Your task to perform on an android device: Toggle the flashlight Image 0: 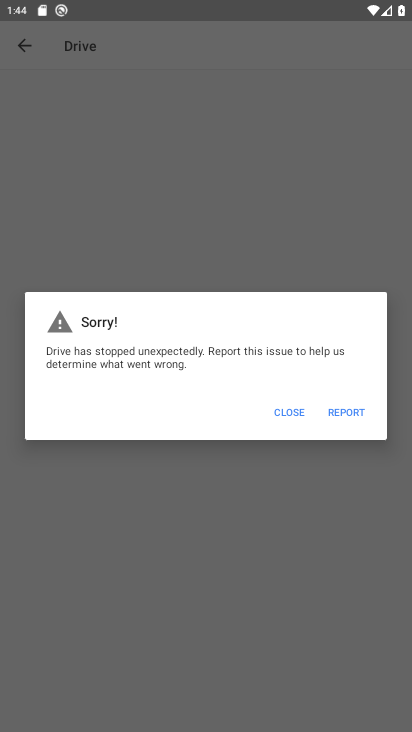
Step 0: press home button
Your task to perform on an android device: Toggle the flashlight Image 1: 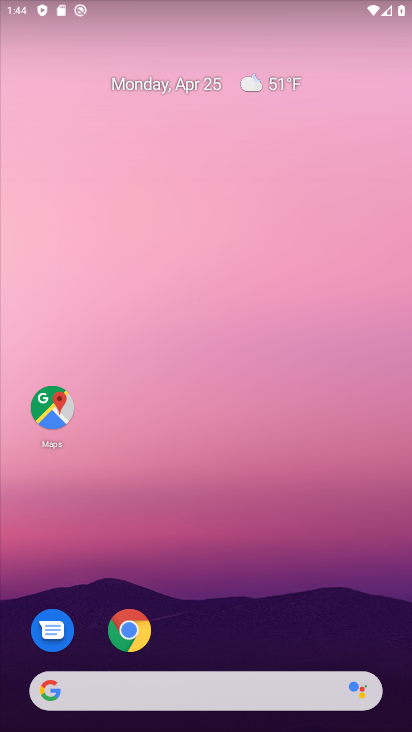
Step 1: drag from (343, 488) to (257, 147)
Your task to perform on an android device: Toggle the flashlight Image 2: 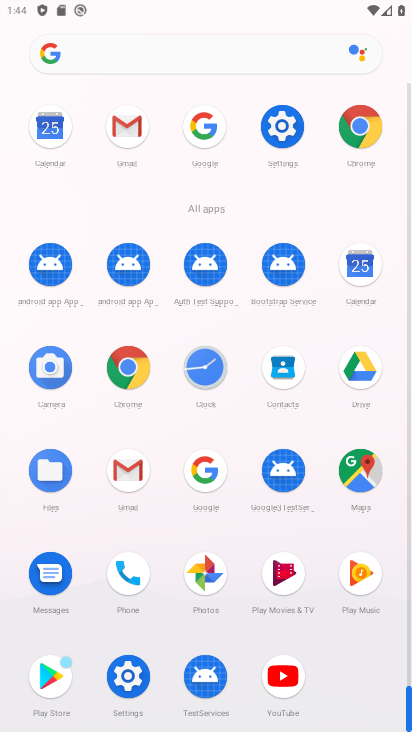
Step 2: click (286, 130)
Your task to perform on an android device: Toggle the flashlight Image 3: 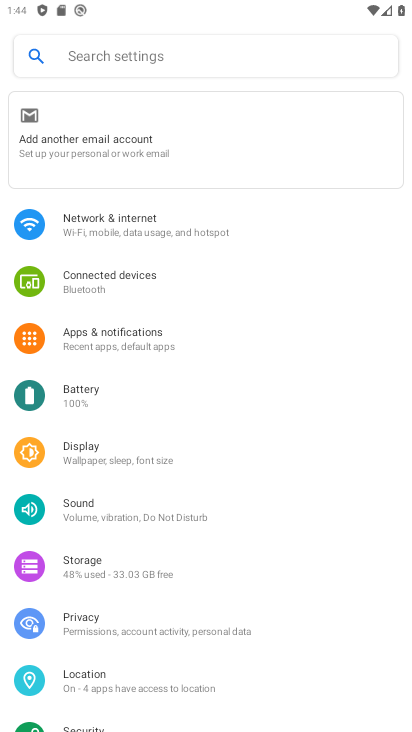
Step 3: drag from (236, 669) to (200, 227)
Your task to perform on an android device: Toggle the flashlight Image 4: 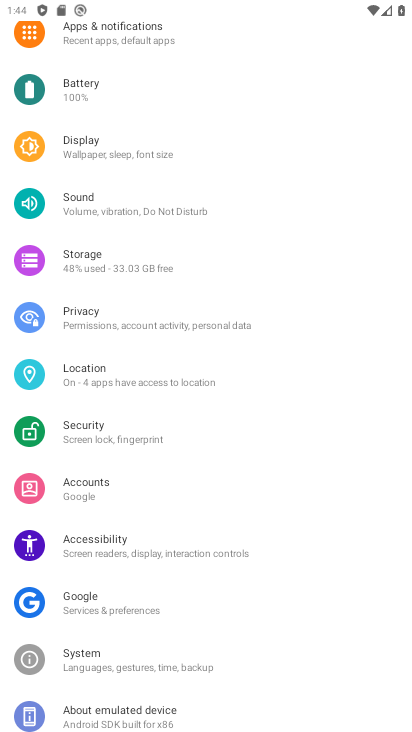
Step 4: click (248, 75)
Your task to perform on an android device: Toggle the flashlight Image 5: 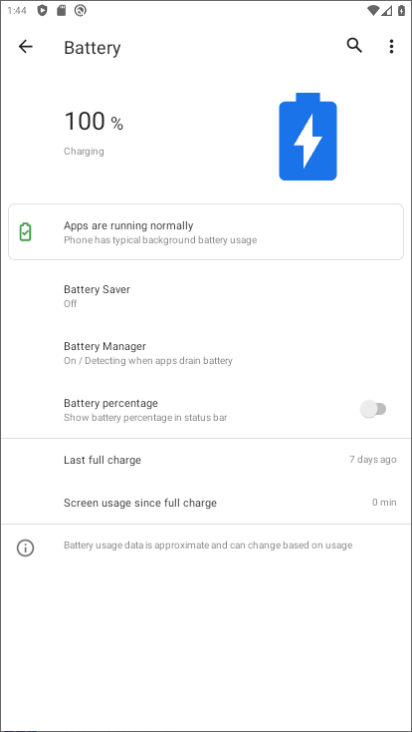
Step 5: drag from (157, 541) to (192, 100)
Your task to perform on an android device: Toggle the flashlight Image 6: 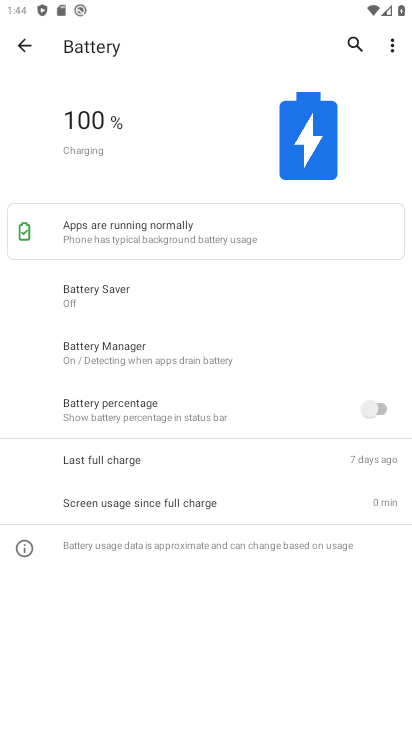
Step 6: click (25, 45)
Your task to perform on an android device: Toggle the flashlight Image 7: 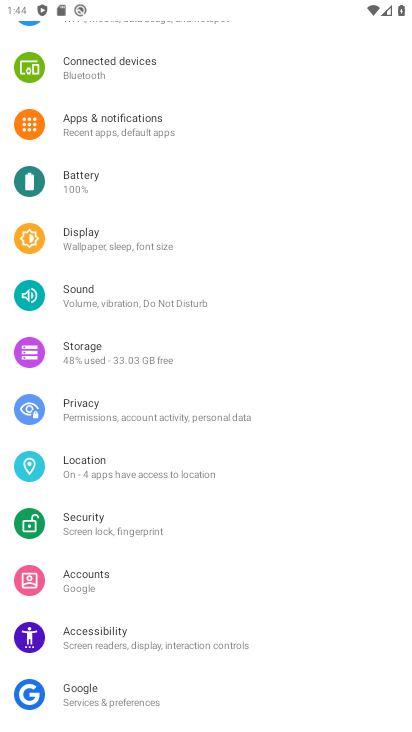
Step 7: task complete